Your task to perform on an android device: turn on the 12-hour format for clock Image 0: 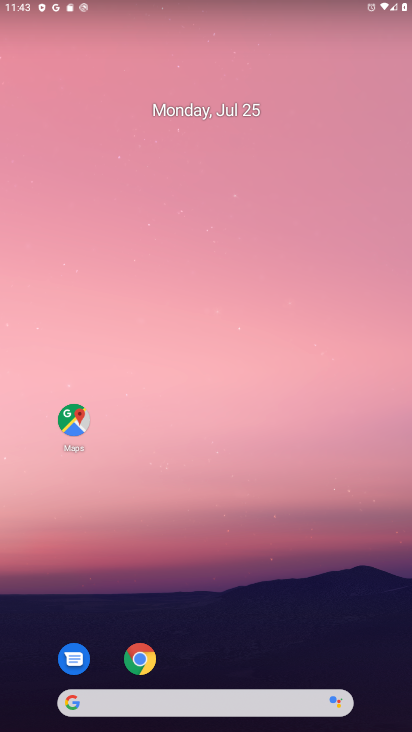
Step 0: drag from (249, 598) to (153, 73)
Your task to perform on an android device: turn on the 12-hour format for clock Image 1: 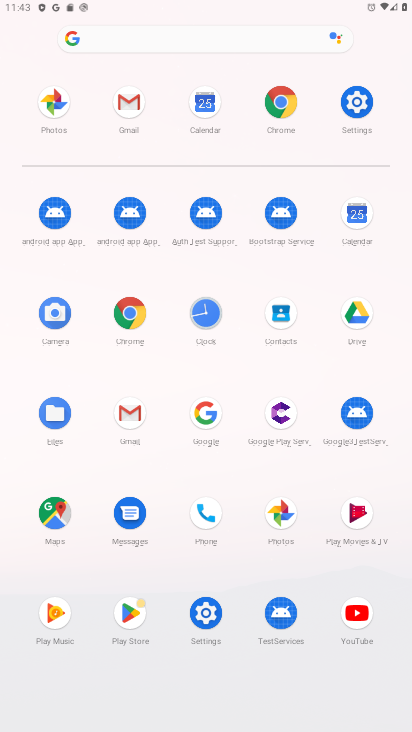
Step 1: click (203, 314)
Your task to perform on an android device: turn on the 12-hour format for clock Image 2: 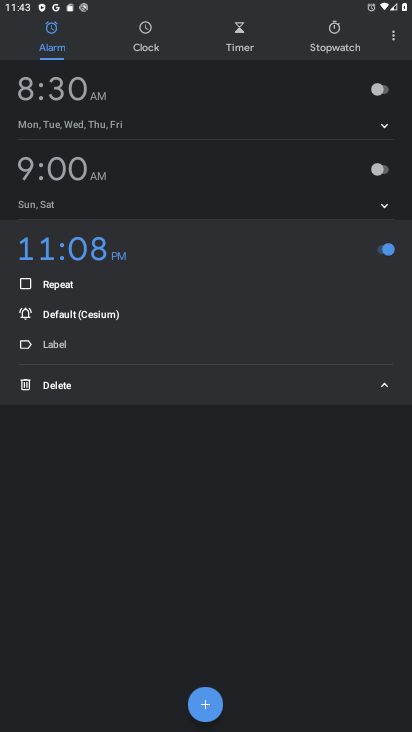
Step 2: click (398, 40)
Your task to perform on an android device: turn on the 12-hour format for clock Image 3: 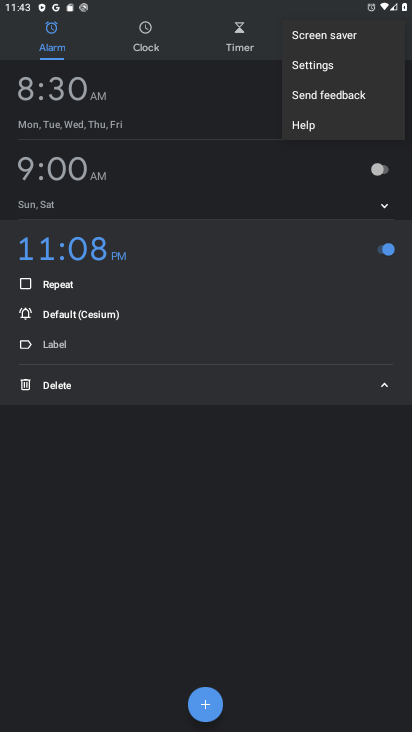
Step 3: click (314, 64)
Your task to perform on an android device: turn on the 12-hour format for clock Image 4: 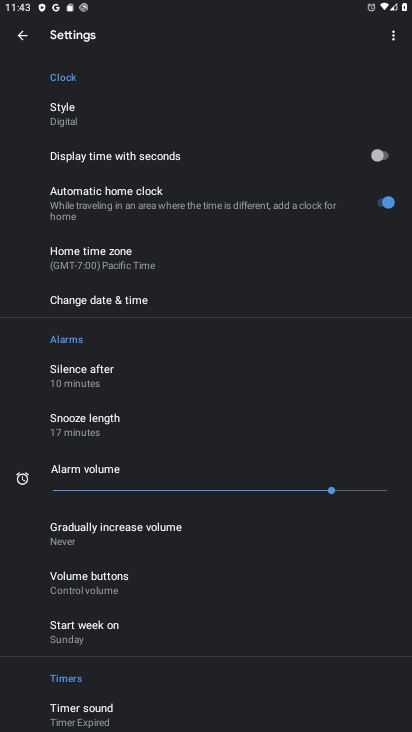
Step 4: click (97, 300)
Your task to perform on an android device: turn on the 12-hour format for clock Image 5: 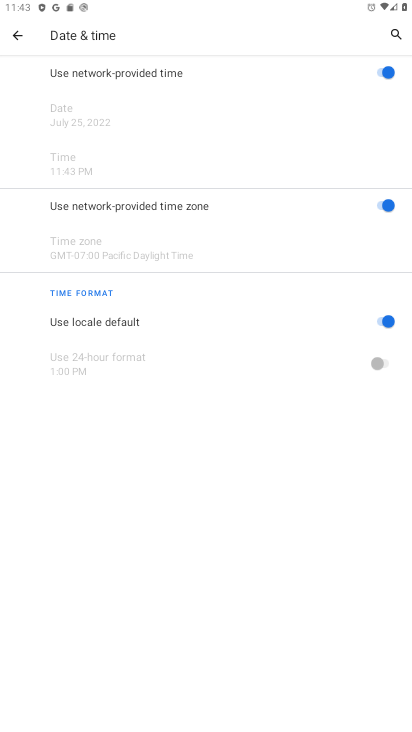
Step 5: task complete